Your task to perform on an android device: set the timer Image 0: 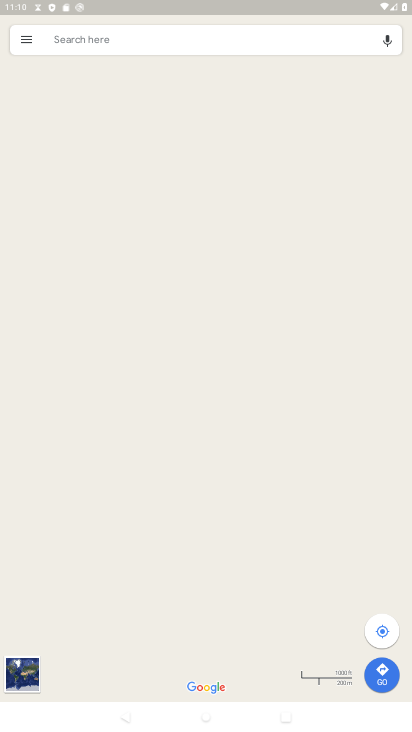
Step 0: press home button
Your task to perform on an android device: set the timer Image 1: 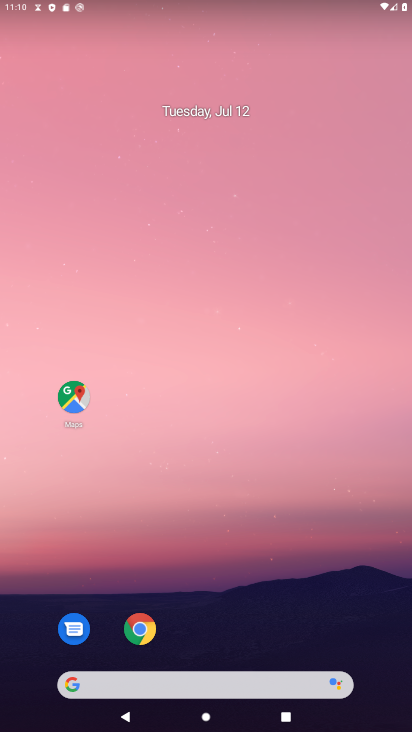
Step 1: drag from (300, 542) to (395, 71)
Your task to perform on an android device: set the timer Image 2: 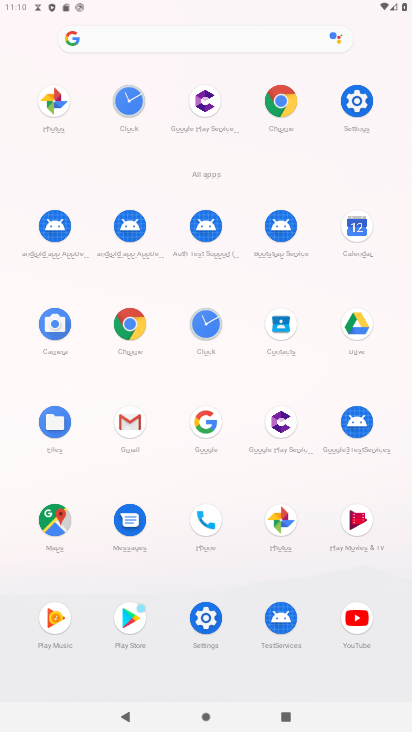
Step 2: click (204, 323)
Your task to perform on an android device: set the timer Image 3: 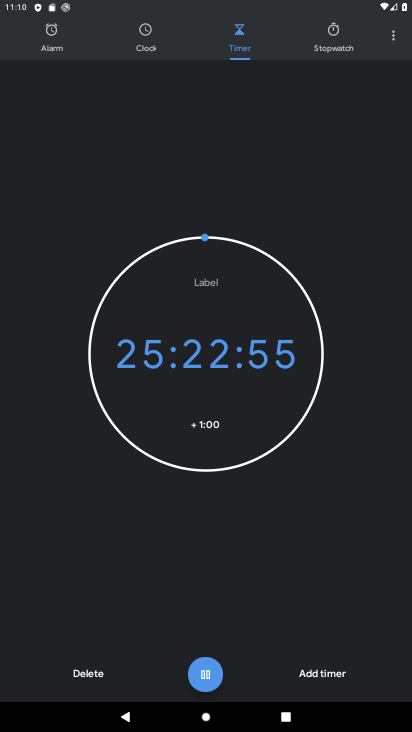
Step 3: task complete